Your task to perform on an android device: turn notification dots off Image 0: 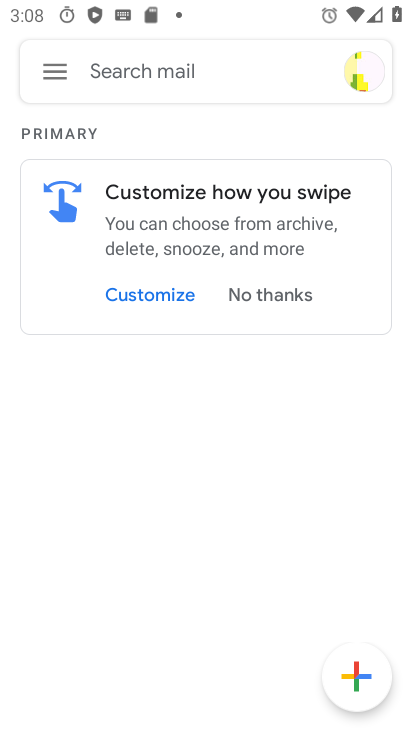
Step 0: press home button
Your task to perform on an android device: turn notification dots off Image 1: 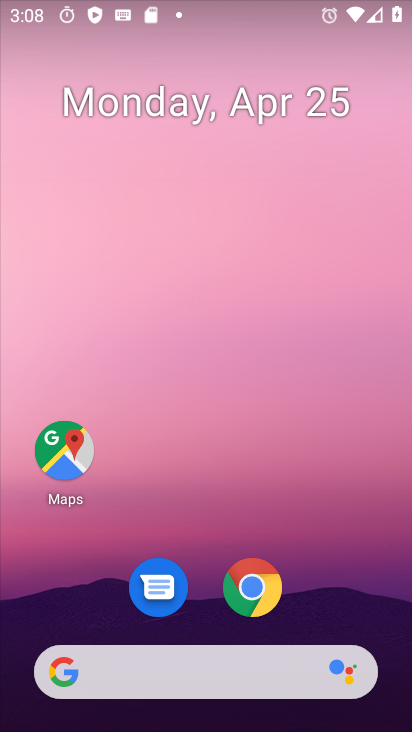
Step 1: drag from (332, 570) to (239, 149)
Your task to perform on an android device: turn notification dots off Image 2: 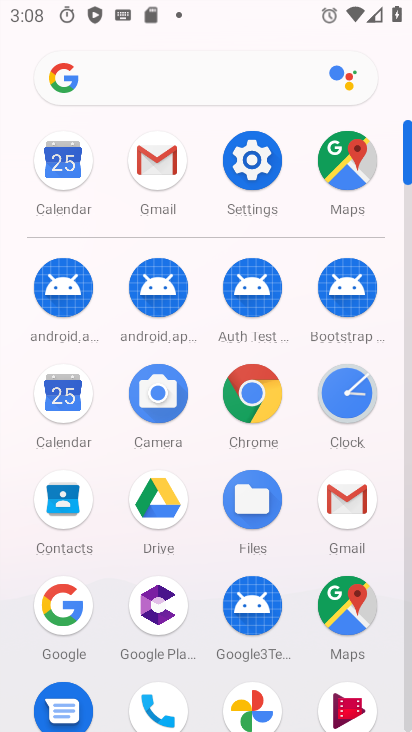
Step 2: click (235, 163)
Your task to perform on an android device: turn notification dots off Image 3: 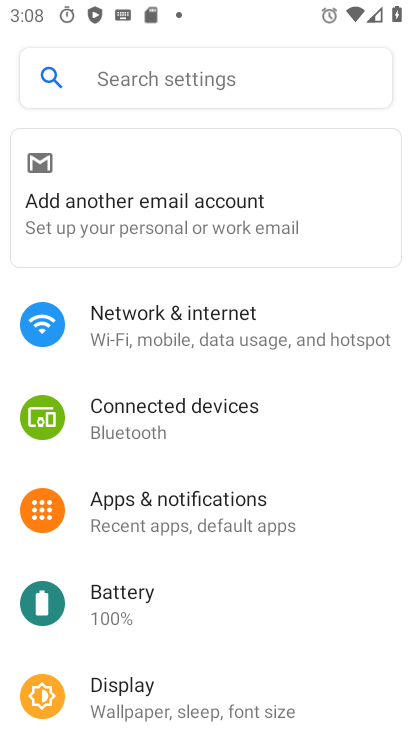
Step 3: drag from (272, 560) to (265, 107)
Your task to perform on an android device: turn notification dots off Image 4: 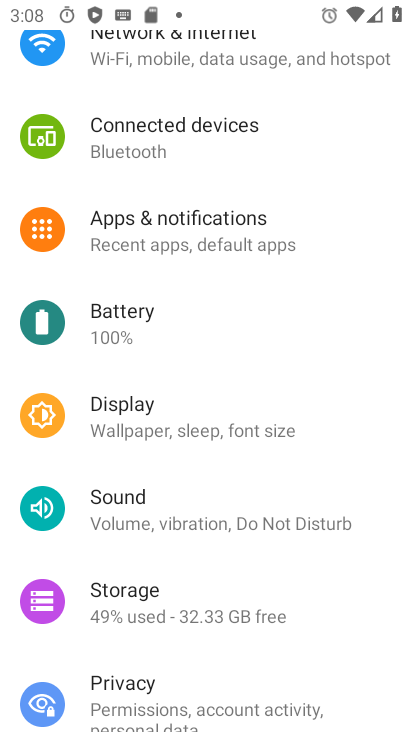
Step 4: click (220, 245)
Your task to perform on an android device: turn notification dots off Image 5: 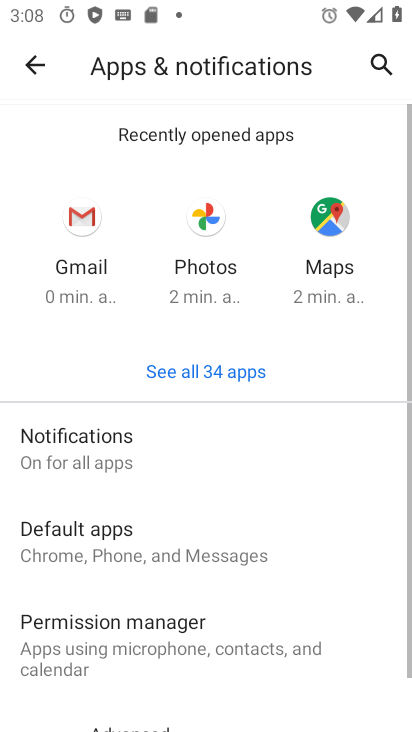
Step 5: click (124, 441)
Your task to perform on an android device: turn notification dots off Image 6: 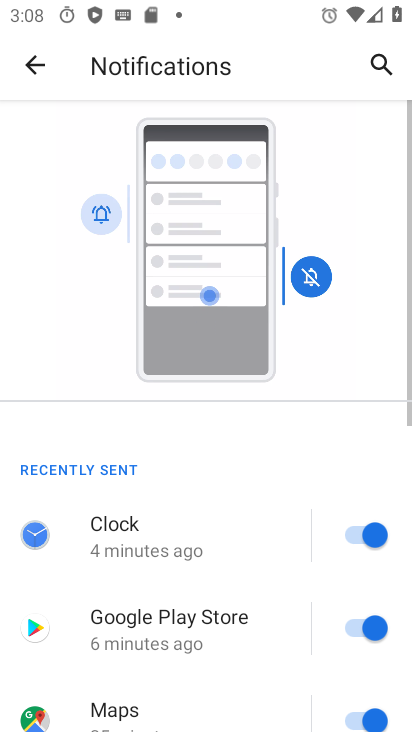
Step 6: drag from (236, 553) to (259, 34)
Your task to perform on an android device: turn notification dots off Image 7: 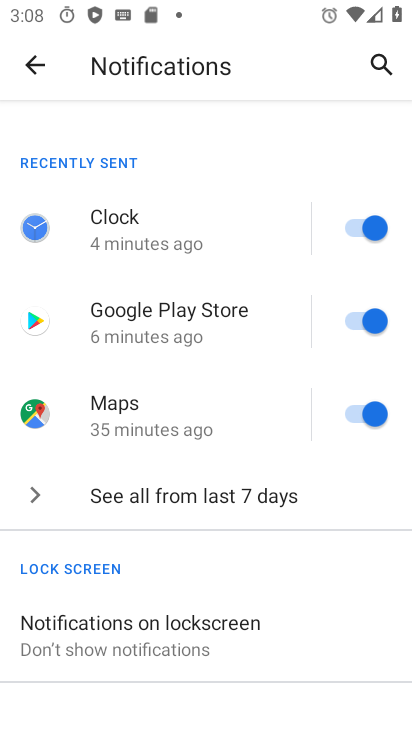
Step 7: drag from (170, 618) to (275, 87)
Your task to perform on an android device: turn notification dots off Image 8: 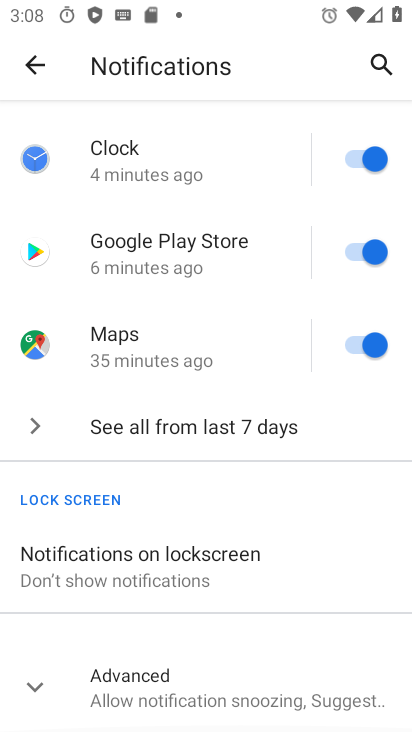
Step 8: click (162, 685)
Your task to perform on an android device: turn notification dots off Image 9: 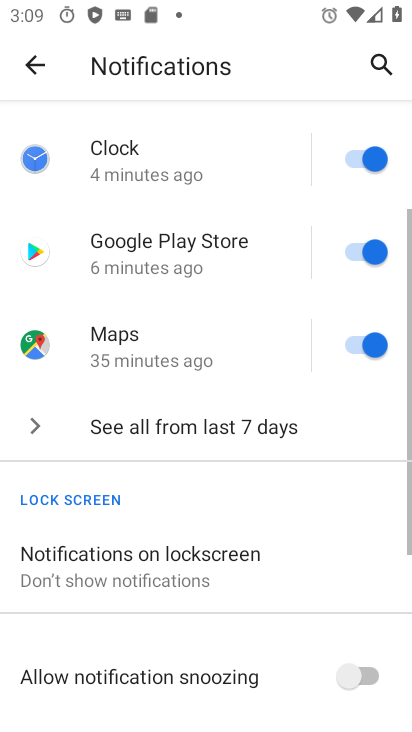
Step 9: task complete